Your task to perform on an android device: toggle airplane mode Image 0: 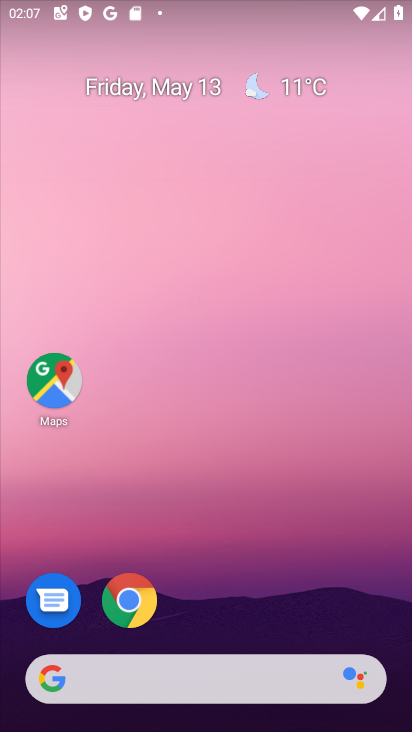
Step 0: drag from (184, 635) to (211, 8)
Your task to perform on an android device: toggle airplane mode Image 1: 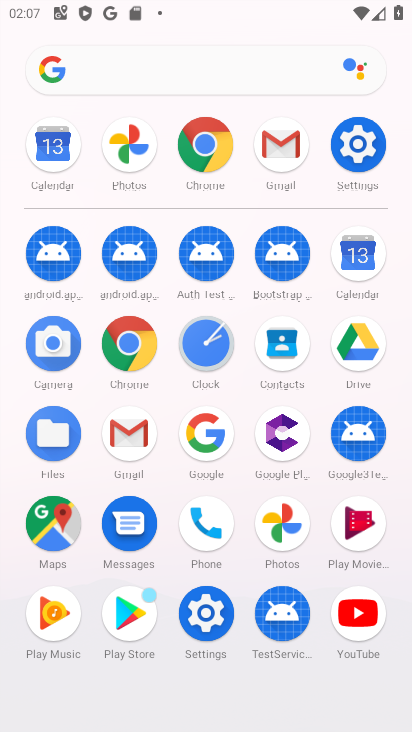
Step 1: click (360, 133)
Your task to perform on an android device: toggle airplane mode Image 2: 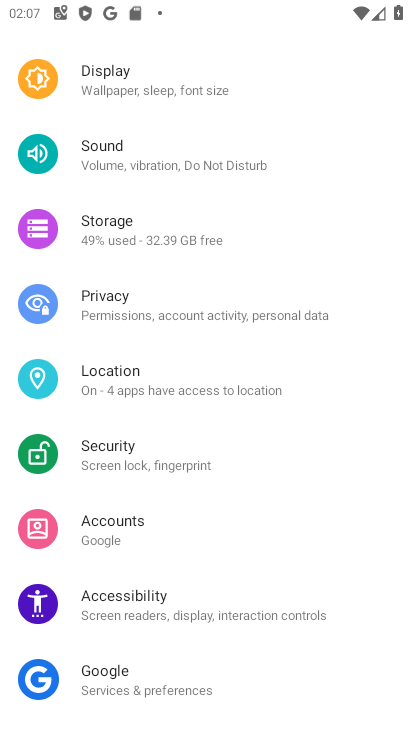
Step 2: drag from (209, 99) to (193, 521)
Your task to perform on an android device: toggle airplane mode Image 3: 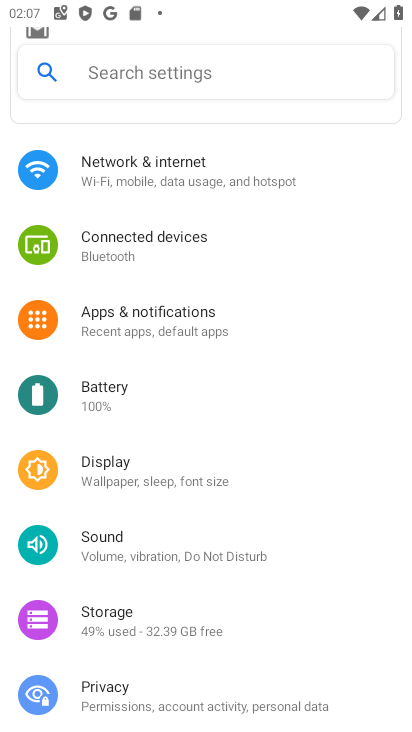
Step 3: click (186, 184)
Your task to perform on an android device: toggle airplane mode Image 4: 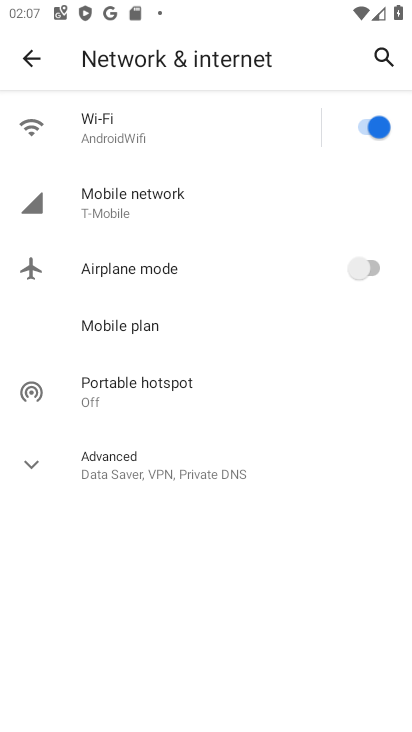
Step 4: click (202, 264)
Your task to perform on an android device: toggle airplane mode Image 5: 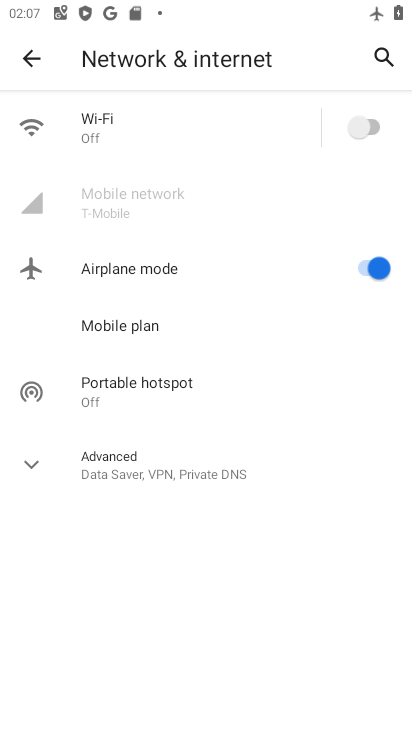
Step 5: task complete